Your task to perform on an android device: Search for vegetarian restaurants on Maps Image 0: 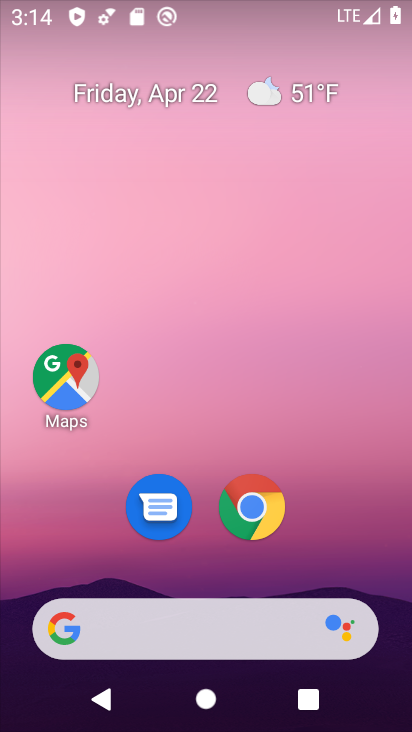
Step 0: drag from (226, 594) to (297, 2)
Your task to perform on an android device: Search for vegetarian restaurants on Maps Image 1: 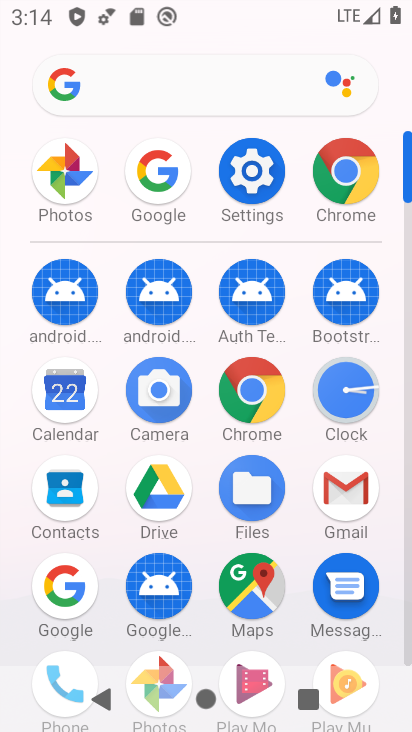
Step 1: click (243, 586)
Your task to perform on an android device: Search for vegetarian restaurants on Maps Image 2: 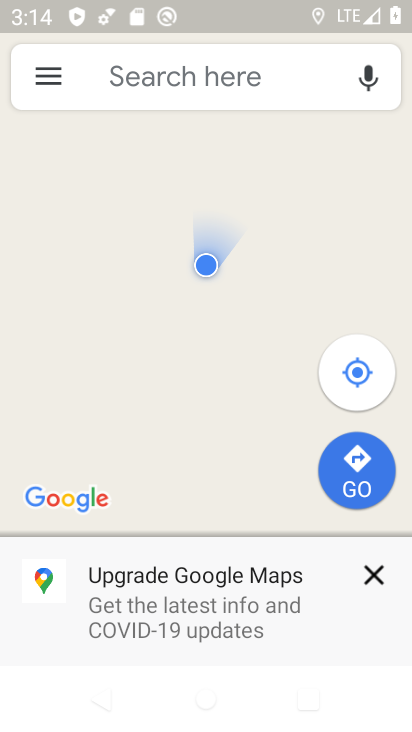
Step 2: click (375, 580)
Your task to perform on an android device: Search for vegetarian restaurants on Maps Image 3: 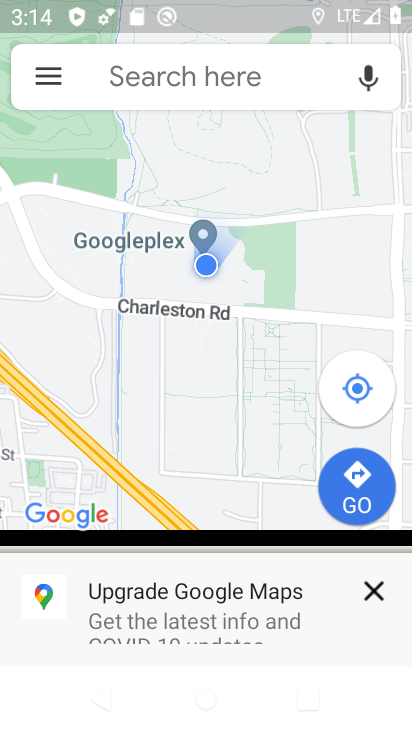
Step 3: click (157, 99)
Your task to perform on an android device: Search for vegetarian restaurants on Maps Image 4: 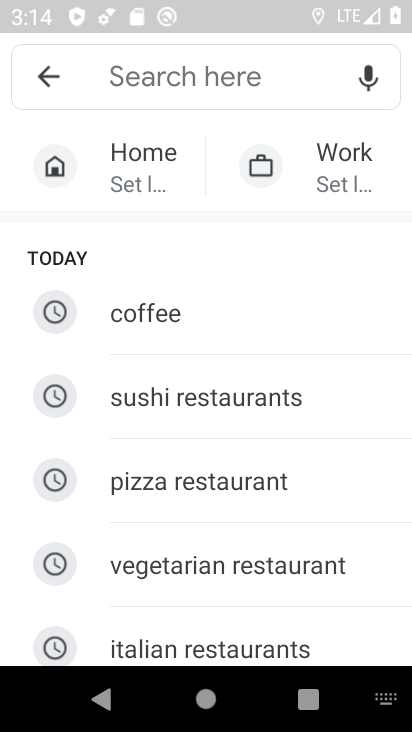
Step 4: click (228, 573)
Your task to perform on an android device: Search for vegetarian restaurants on Maps Image 5: 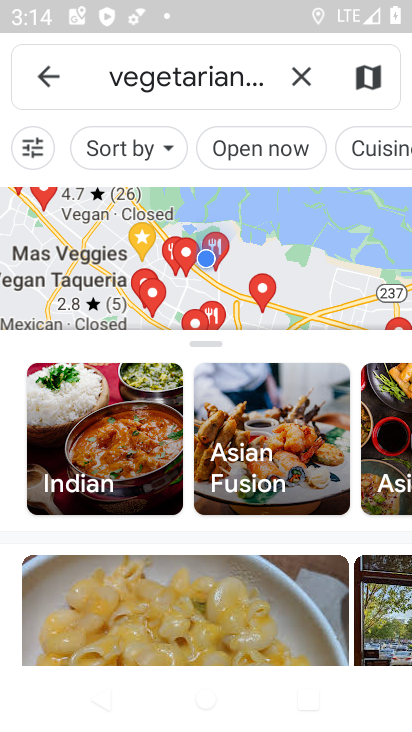
Step 5: task complete